Your task to perform on an android device: Is it going to rain today? Image 0: 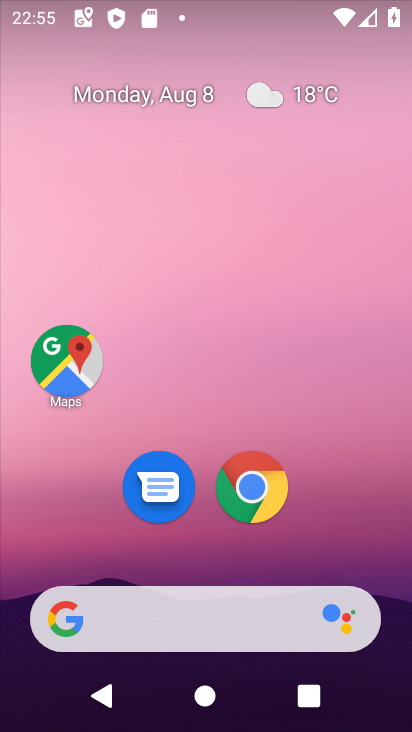
Step 0: drag from (219, 402) to (236, 101)
Your task to perform on an android device: Is it going to rain today? Image 1: 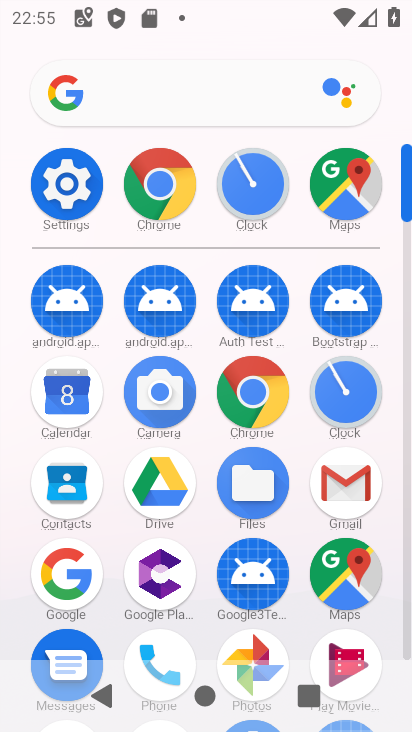
Step 1: click (59, 574)
Your task to perform on an android device: Is it going to rain today? Image 2: 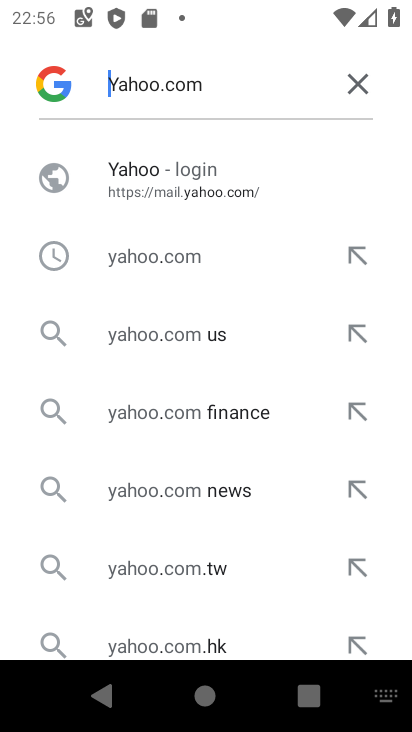
Step 2: click (362, 77)
Your task to perform on an android device: Is it going to rain today? Image 3: 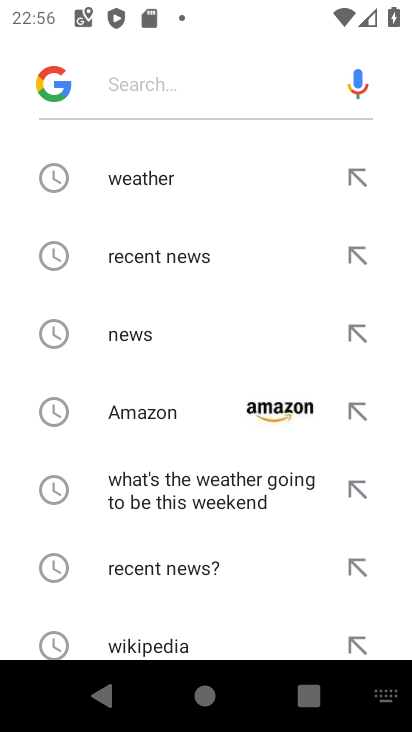
Step 3: type "weather"
Your task to perform on an android device: Is it going to rain today? Image 4: 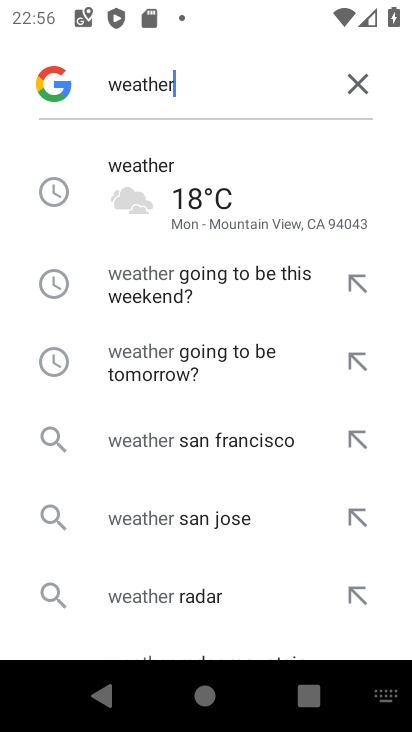
Step 4: click (135, 166)
Your task to perform on an android device: Is it going to rain today? Image 5: 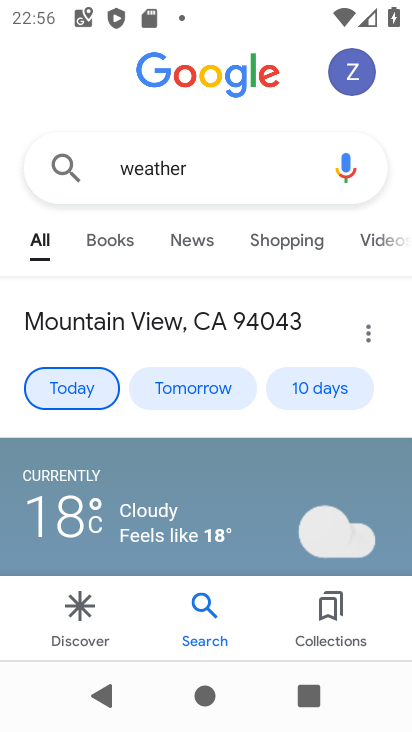
Step 5: click (71, 388)
Your task to perform on an android device: Is it going to rain today? Image 6: 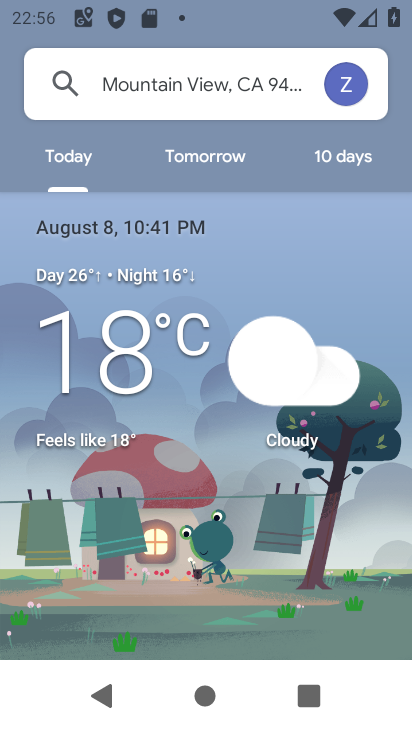
Step 6: task complete